Your task to perform on an android device: toggle notifications settings in the gmail app Image 0: 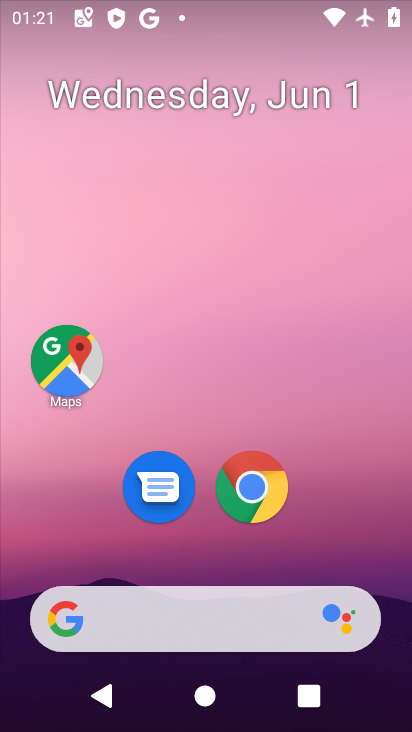
Step 0: drag from (318, 538) to (320, 173)
Your task to perform on an android device: toggle notifications settings in the gmail app Image 1: 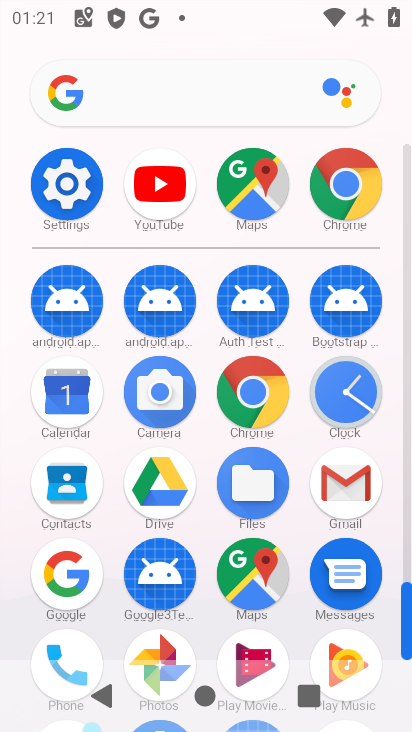
Step 1: drag from (301, 645) to (285, 397)
Your task to perform on an android device: toggle notifications settings in the gmail app Image 2: 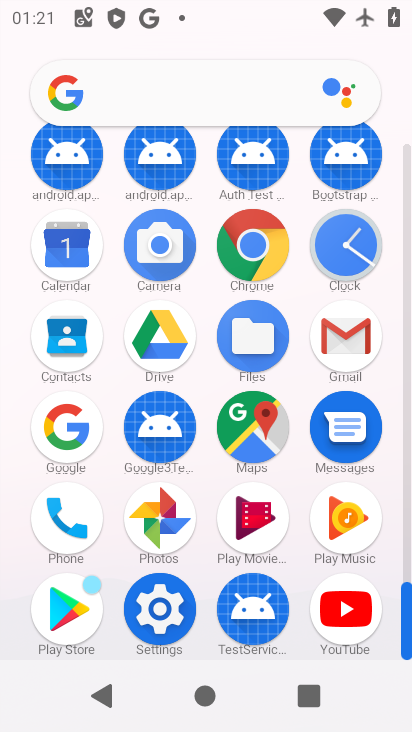
Step 2: click (353, 325)
Your task to perform on an android device: toggle notifications settings in the gmail app Image 3: 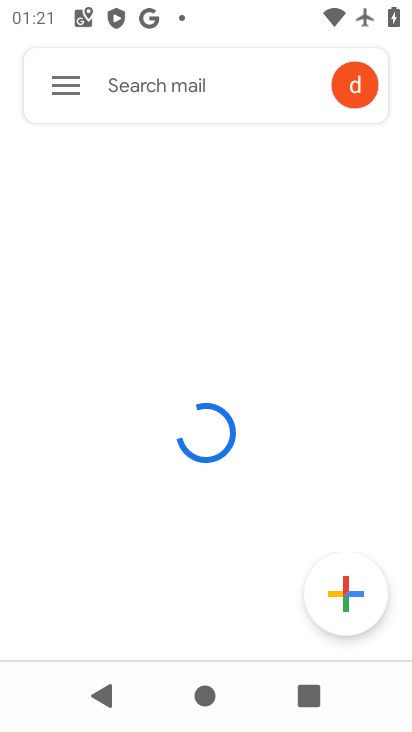
Step 3: click (74, 77)
Your task to perform on an android device: toggle notifications settings in the gmail app Image 4: 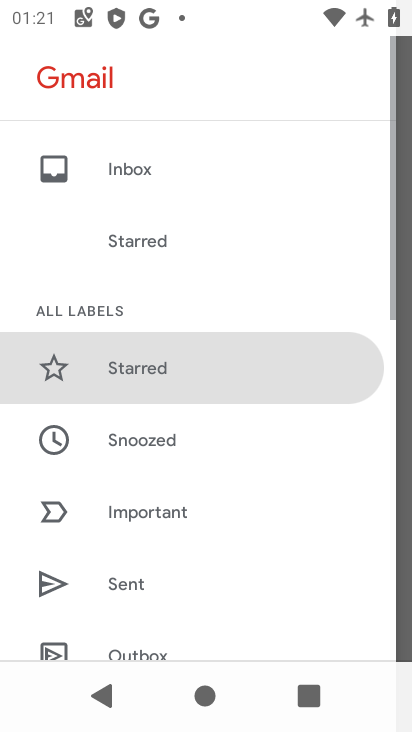
Step 4: drag from (205, 580) to (254, 172)
Your task to perform on an android device: toggle notifications settings in the gmail app Image 5: 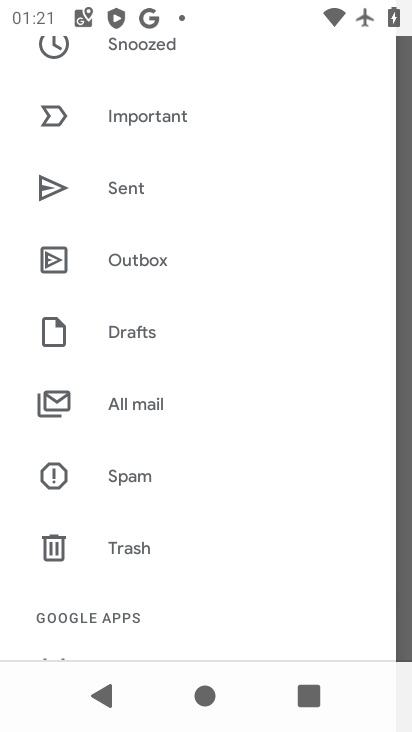
Step 5: drag from (169, 547) to (238, 181)
Your task to perform on an android device: toggle notifications settings in the gmail app Image 6: 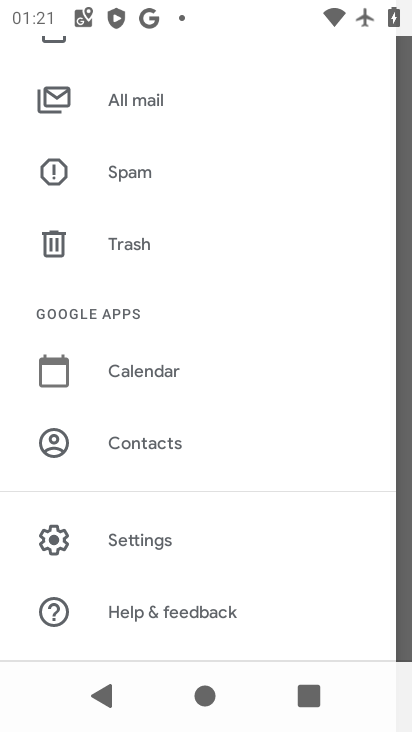
Step 6: click (157, 532)
Your task to perform on an android device: toggle notifications settings in the gmail app Image 7: 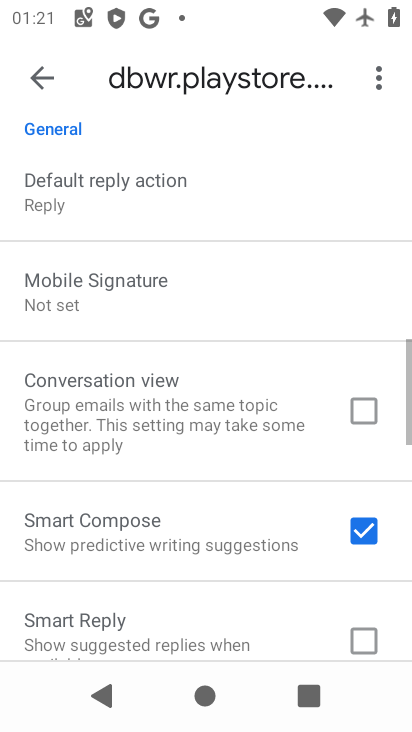
Step 7: drag from (186, 584) to (192, 284)
Your task to perform on an android device: toggle notifications settings in the gmail app Image 8: 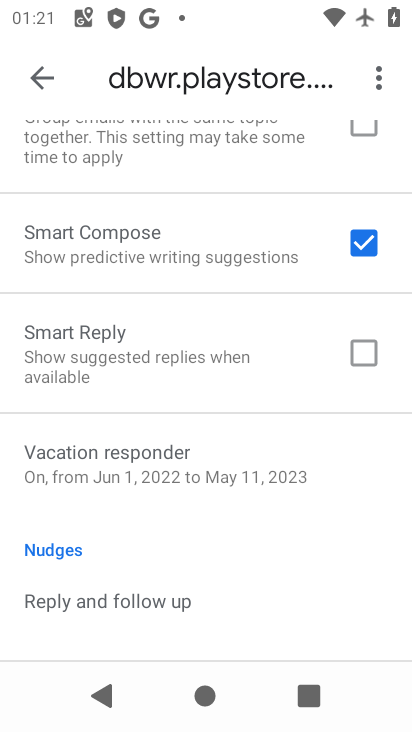
Step 8: drag from (180, 550) to (231, 242)
Your task to perform on an android device: toggle notifications settings in the gmail app Image 9: 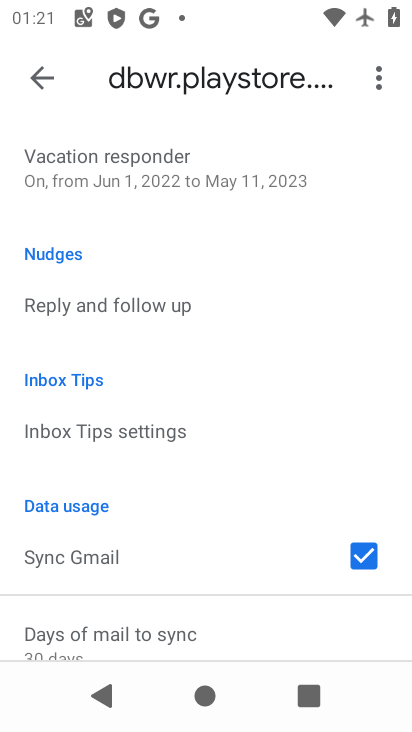
Step 9: drag from (200, 550) to (248, 241)
Your task to perform on an android device: toggle notifications settings in the gmail app Image 10: 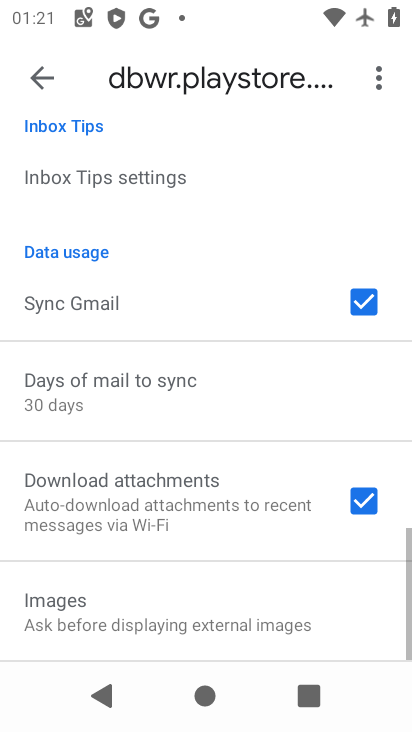
Step 10: drag from (171, 572) to (202, 221)
Your task to perform on an android device: toggle notifications settings in the gmail app Image 11: 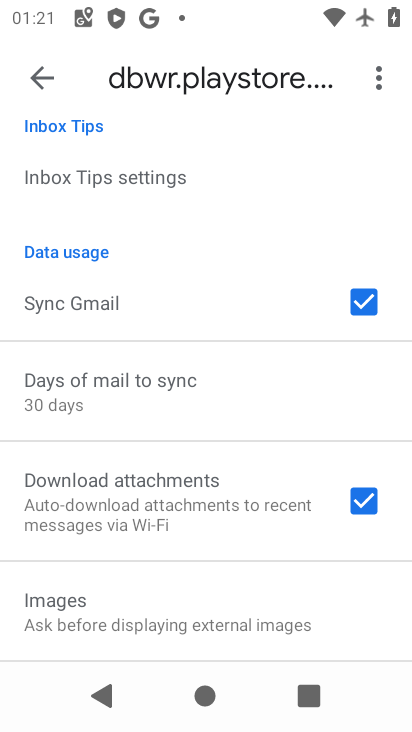
Step 11: drag from (115, 223) to (83, 581)
Your task to perform on an android device: toggle notifications settings in the gmail app Image 12: 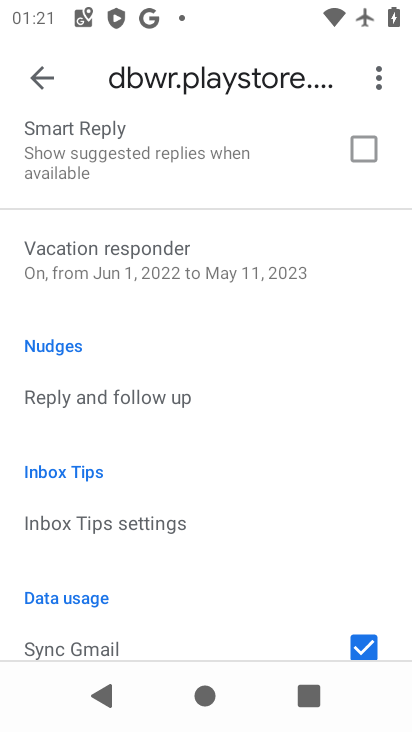
Step 12: drag from (123, 236) to (125, 545)
Your task to perform on an android device: toggle notifications settings in the gmail app Image 13: 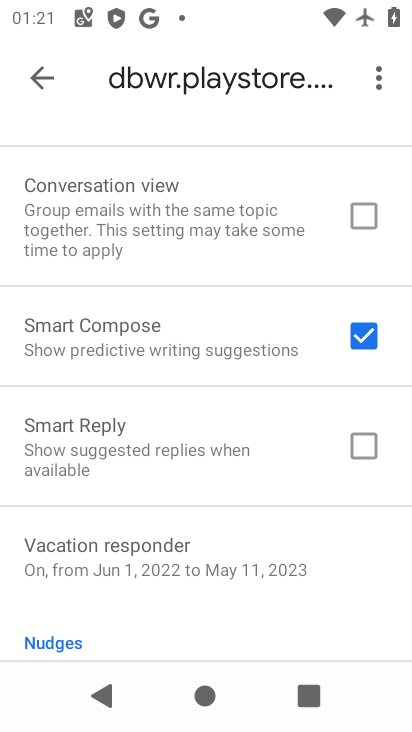
Step 13: drag from (148, 204) to (107, 589)
Your task to perform on an android device: toggle notifications settings in the gmail app Image 14: 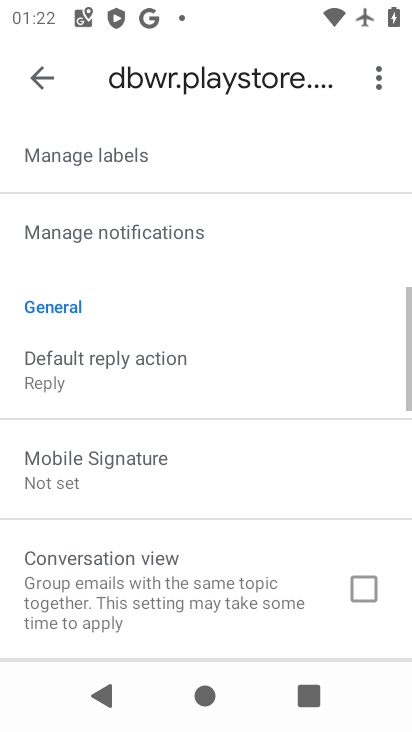
Step 14: drag from (149, 233) to (119, 522)
Your task to perform on an android device: toggle notifications settings in the gmail app Image 15: 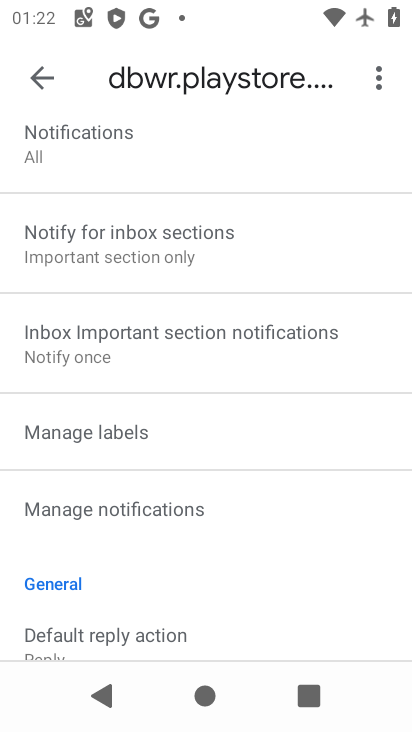
Step 15: click (111, 132)
Your task to perform on an android device: toggle notifications settings in the gmail app Image 16: 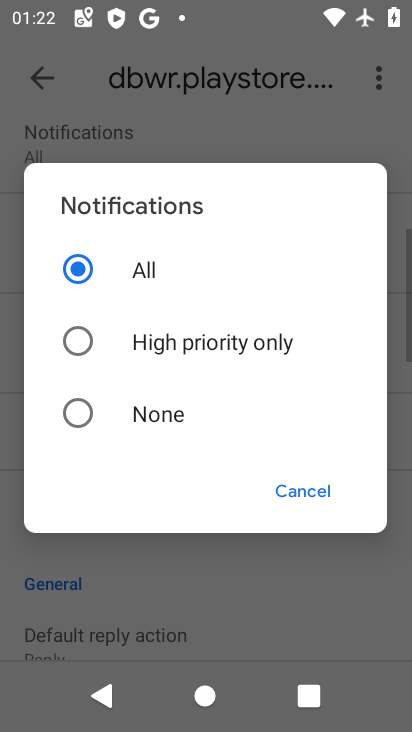
Step 16: click (163, 410)
Your task to perform on an android device: toggle notifications settings in the gmail app Image 17: 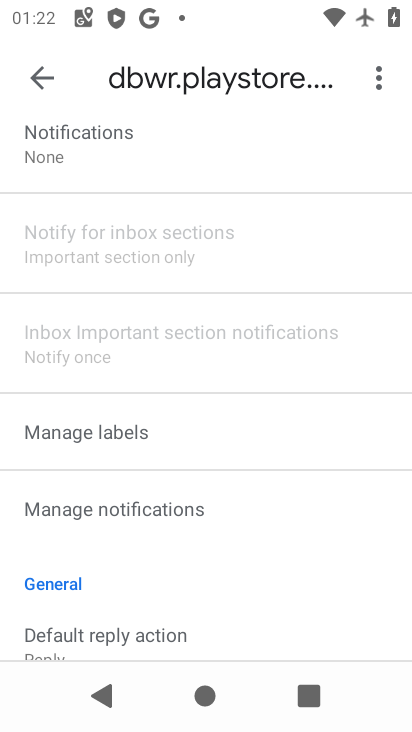
Step 17: task complete